Your task to perform on an android device: Open the clock Image 0: 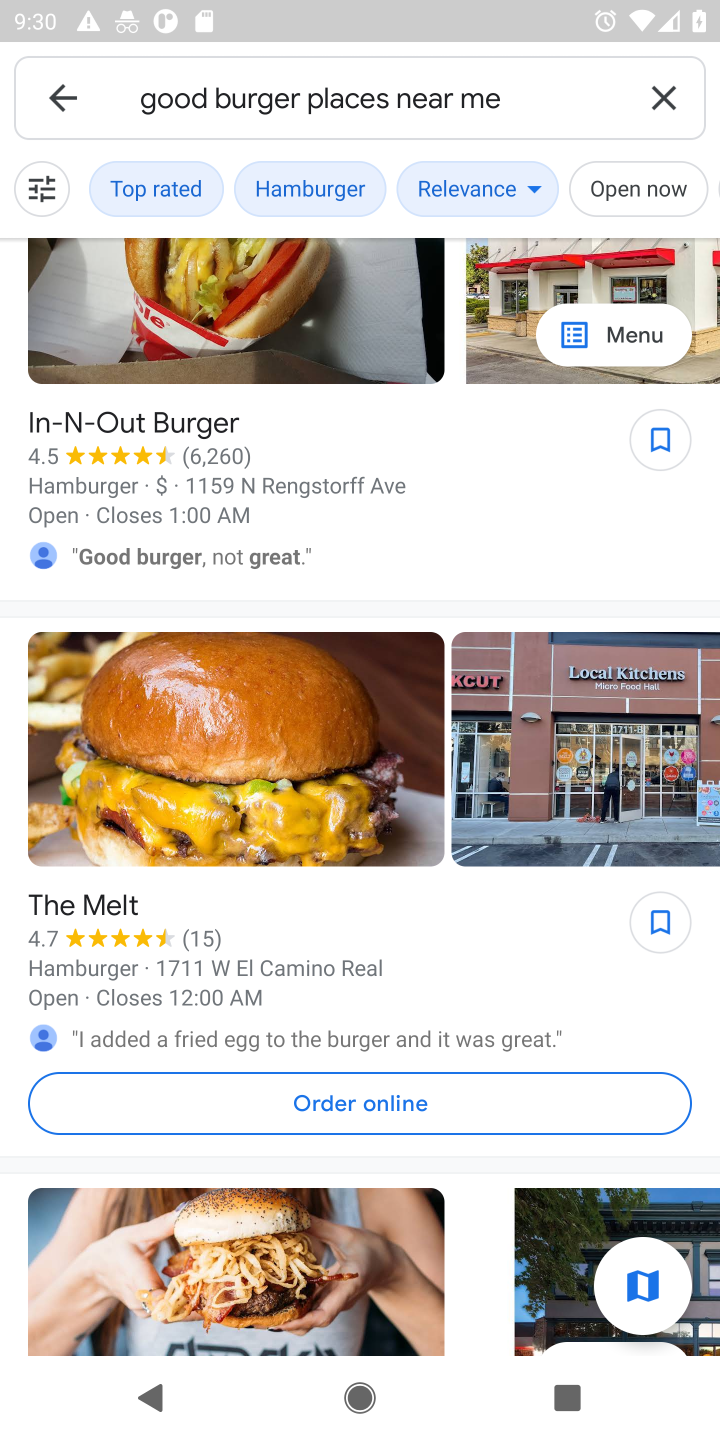
Step 0: click (662, 88)
Your task to perform on an android device: Open the clock Image 1: 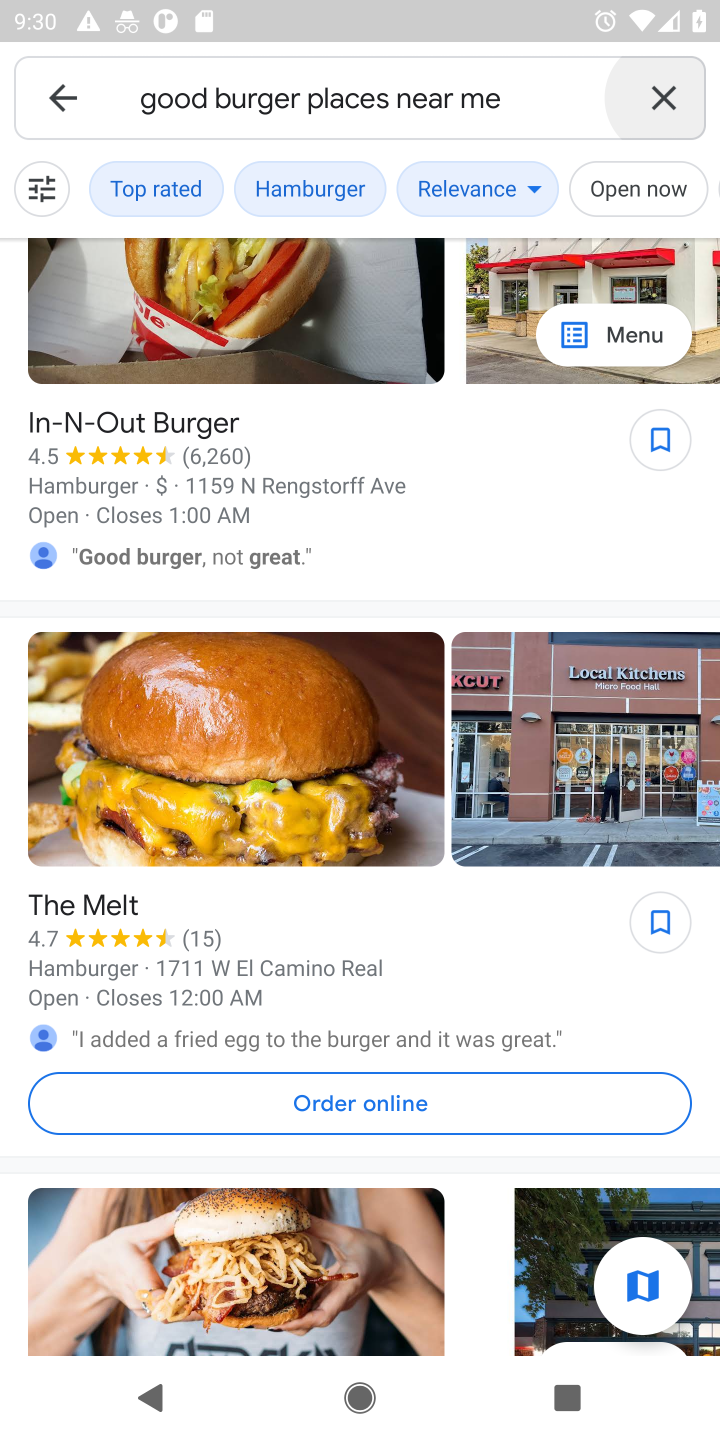
Step 1: press home button
Your task to perform on an android device: Open the clock Image 2: 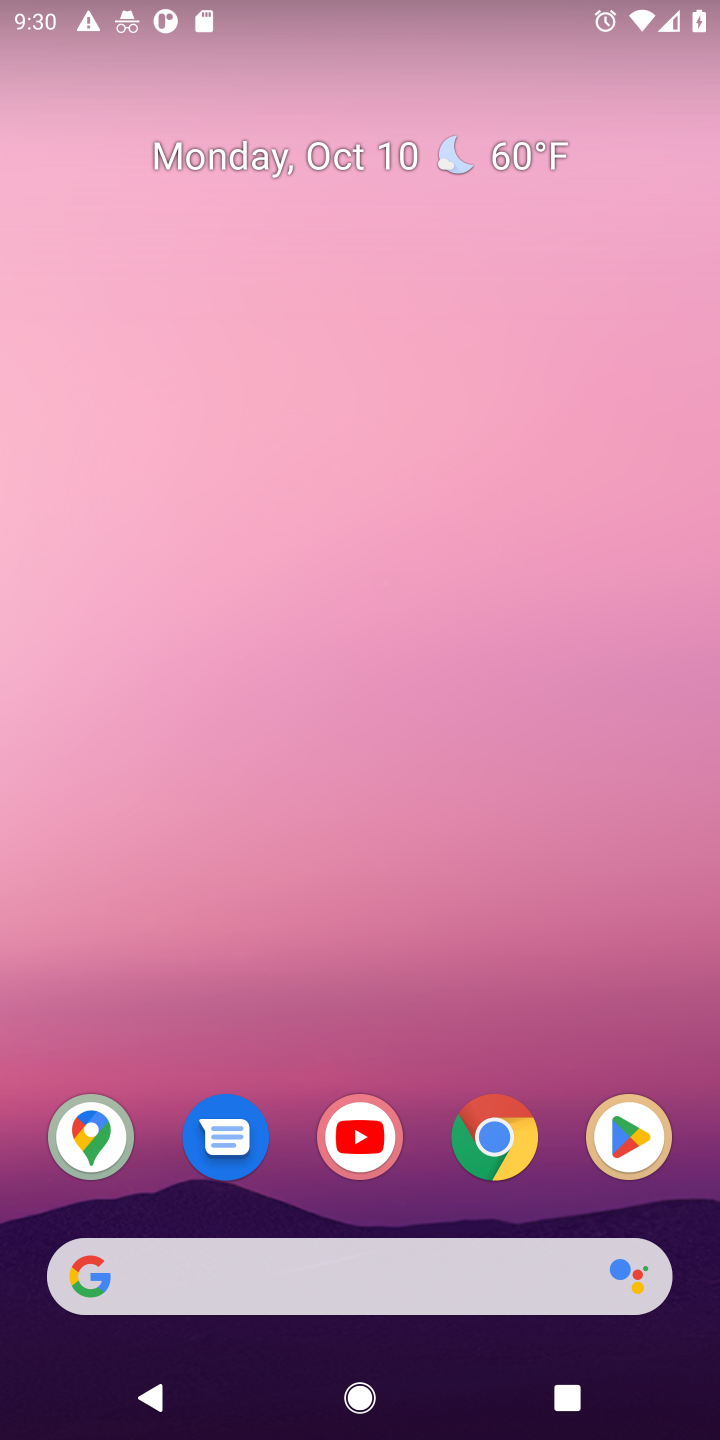
Step 2: drag from (549, 1108) to (459, 301)
Your task to perform on an android device: Open the clock Image 3: 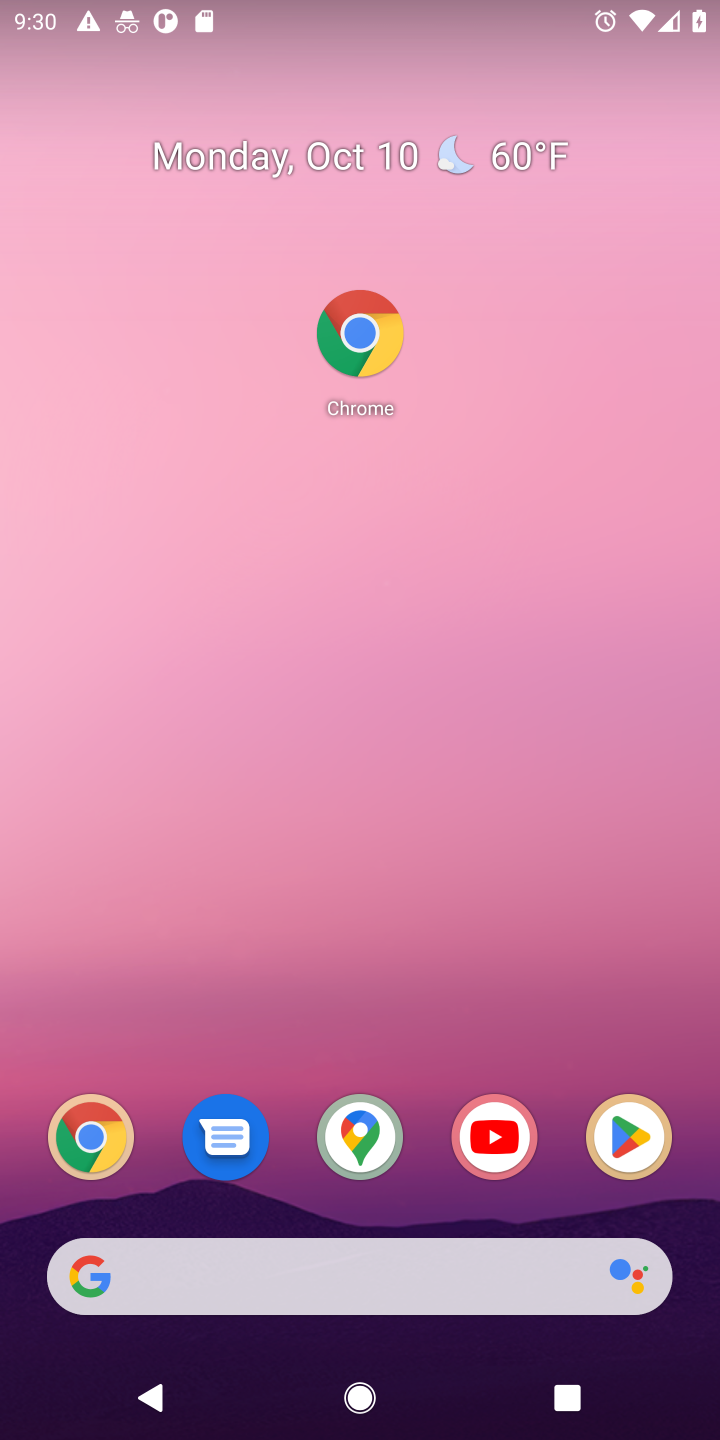
Step 3: drag from (558, 1011) to (472, 222)
Your task to perform on an android device: Open the clock Image 4: 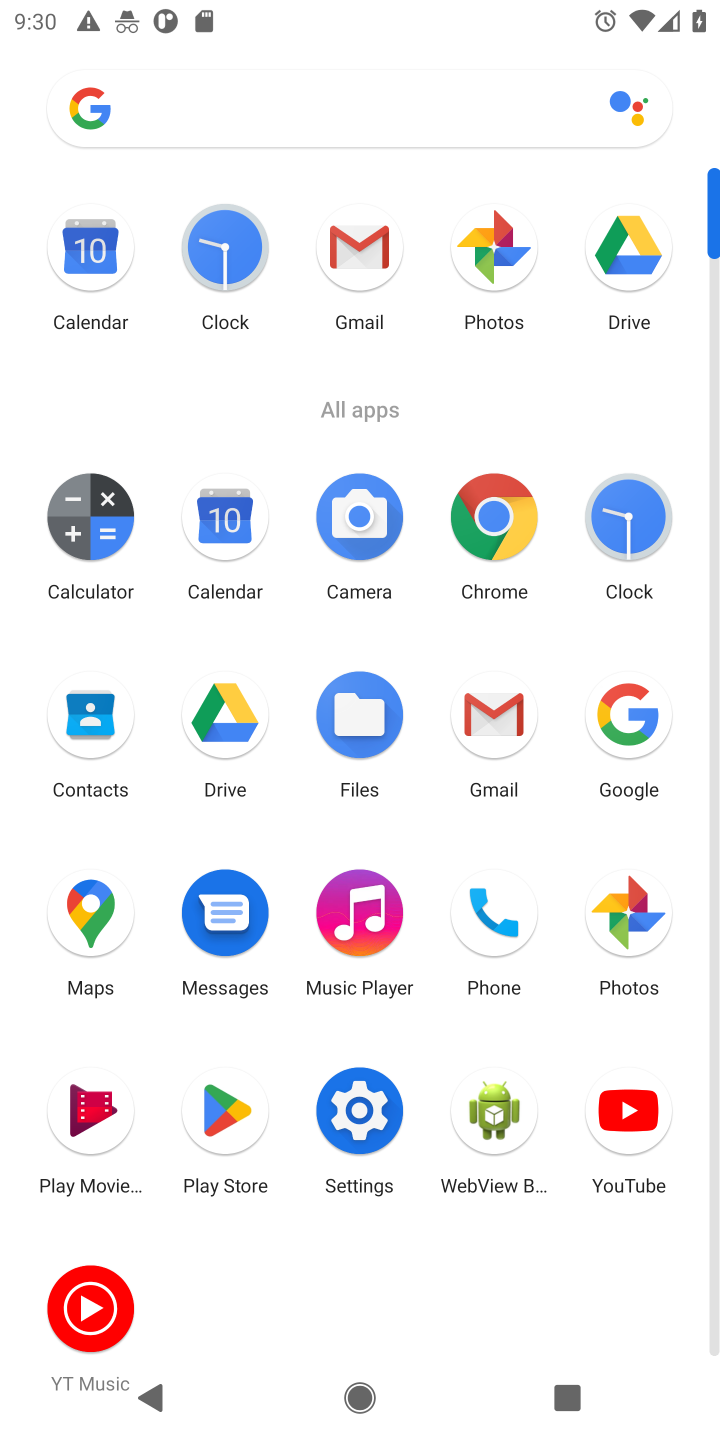
Step 4: click (633, 515)
Your task to perform on an android device: Open the clock Image 5: 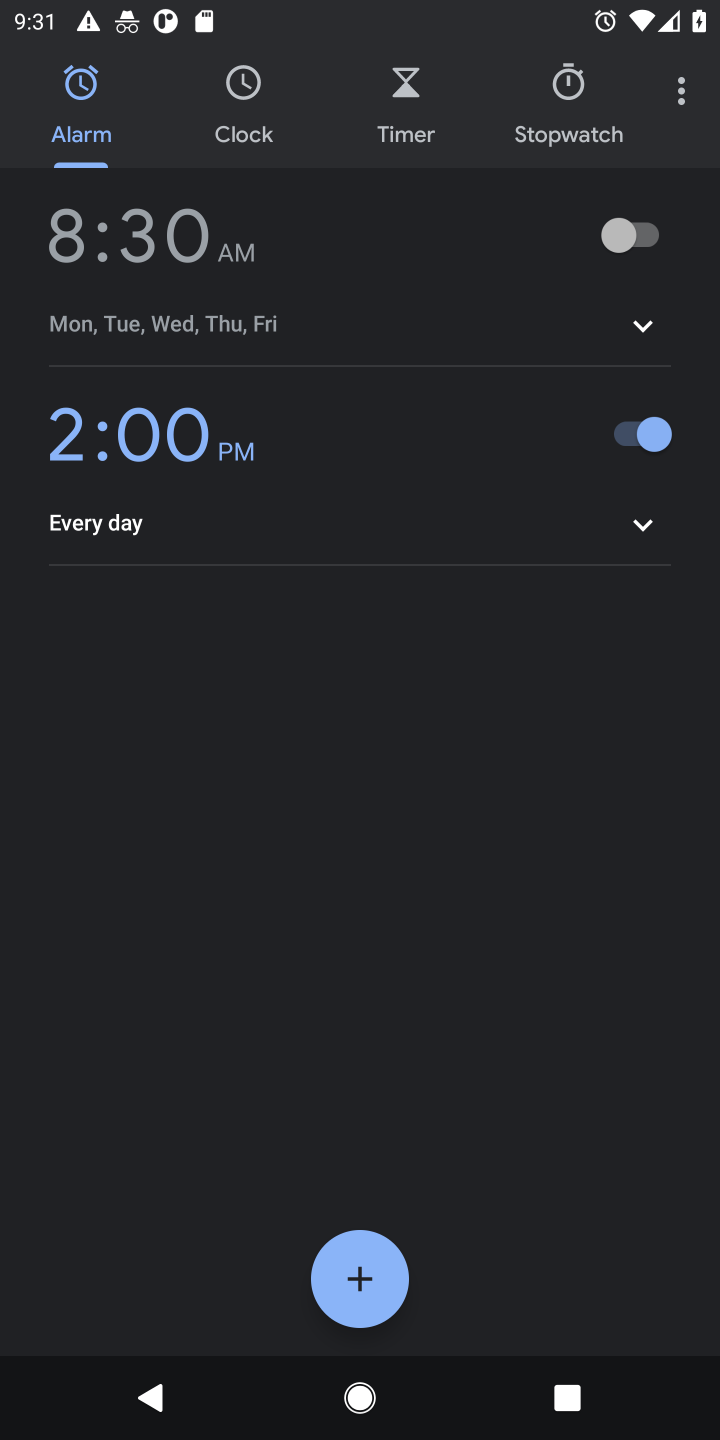
Step 5: task complete